Your task to perform on an android device: Open Google Maps Image 0: 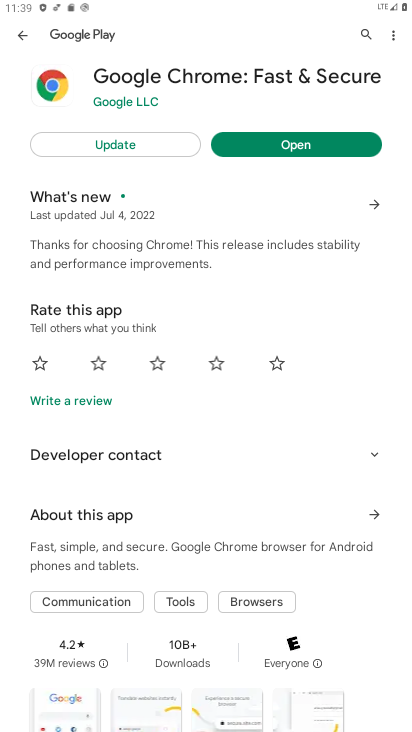
Step 0: press home button
Your task to perform on an android device: Open Google Maps Image 1: 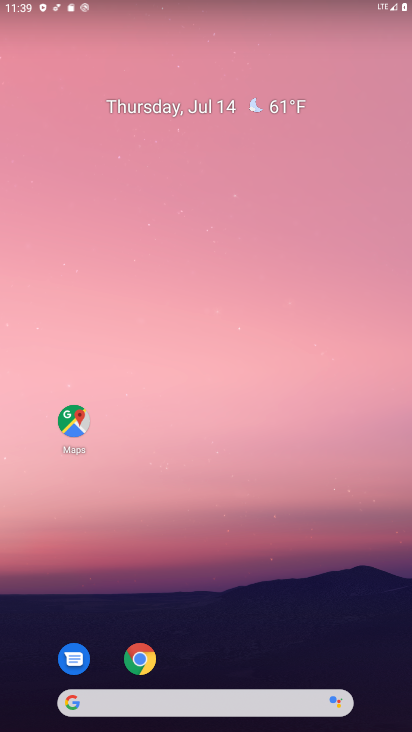
Step 1: click (66, 416)
Your task to perform on an android device: Open Google Maps Image 2: 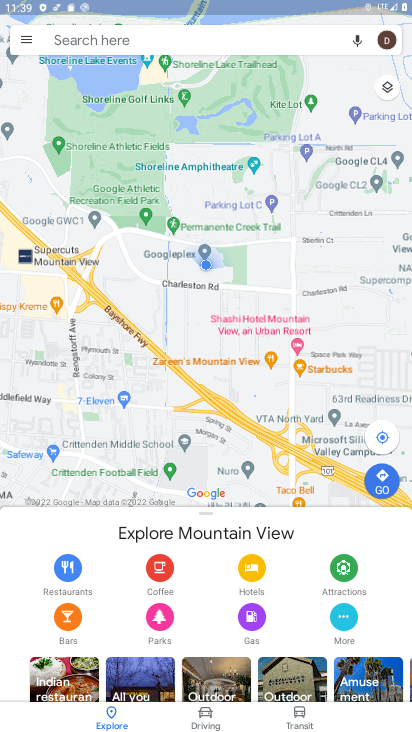
Step 2: task complete